Your task to perform on an android device: manage bookmarks in the chrome app Image 0: 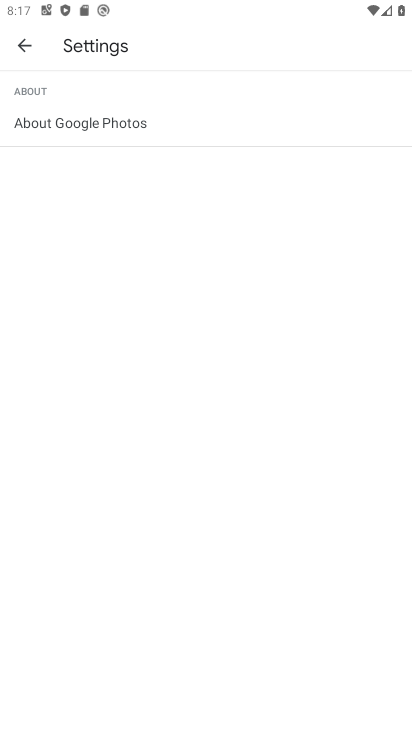
Step 0: press home button
Your task to perform on an android device: manage bookmarks in the chrome app Image 1: 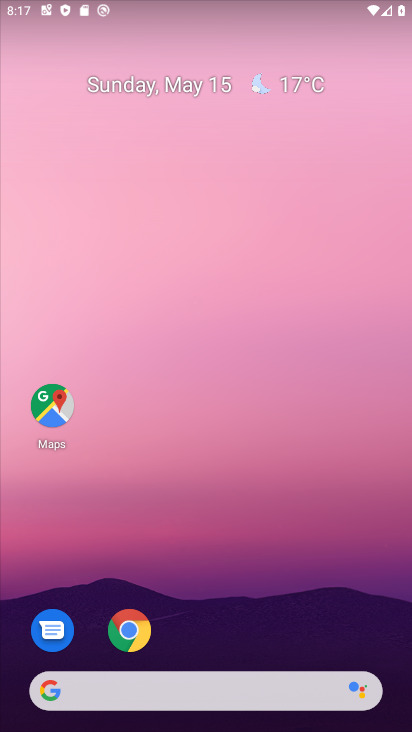
Step 1: drag from (314, 574) to (261, 61)
Your task to perform on an android device: manage bookmarks in the chrome app Image 2: 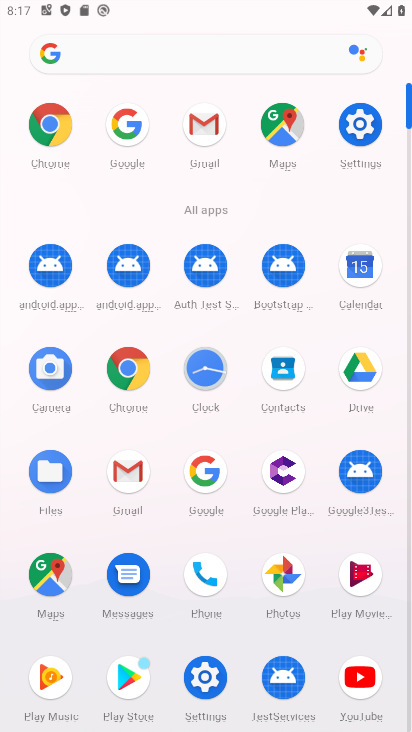
Step 2: click (42, 143)
Your task to perform on an android device: manage bookmarks in the chrome app Image 3: 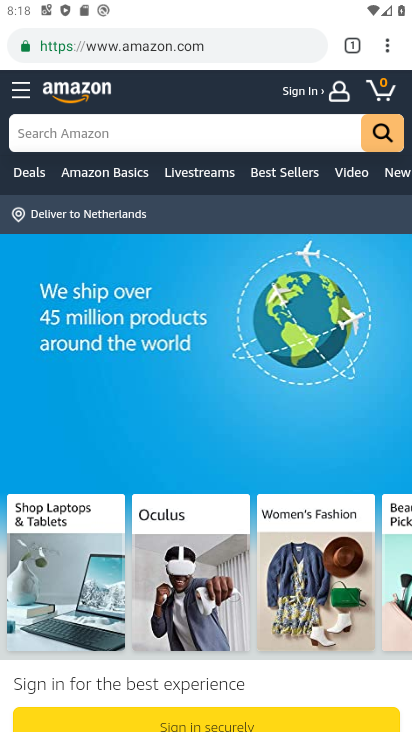
Step 3: drag from (387, 39) to (236, 179)
Your task to perform on an android device: manage bookmarks in the chrome app Image 4: 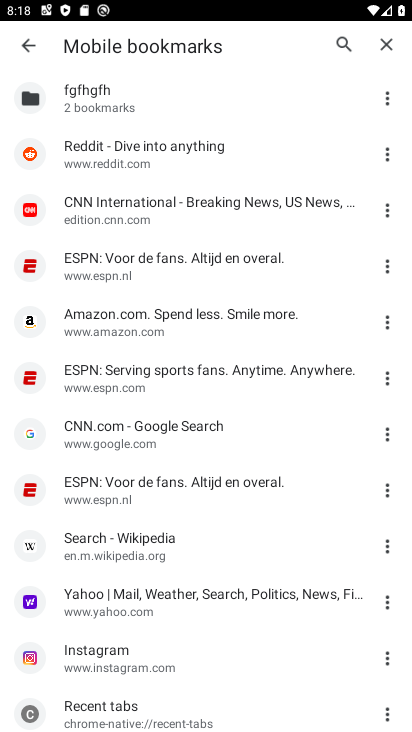
Step 4: click (395, 94)
Your task to perform on an android device: manage bookmarks in the chrome app Image 5: 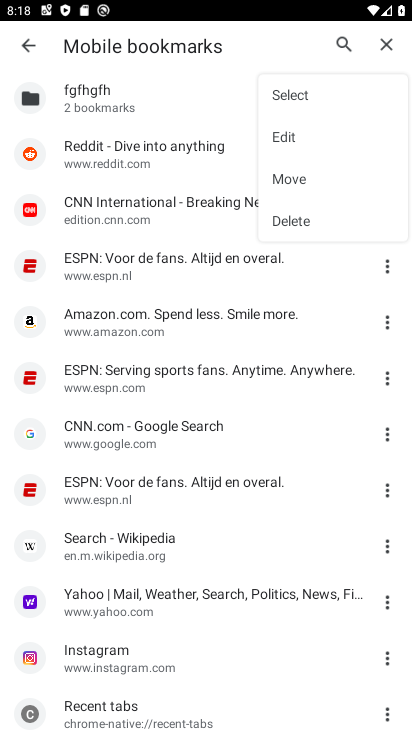
Step 5: click (278, 231)
Your task to perform on an android device: manage bookmarks in the chrome app Image 6: 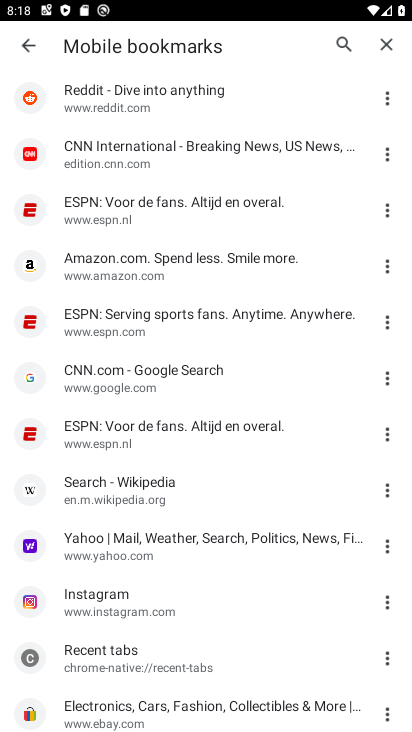
Step 6: task complete